Your task to perform on an android device: Open Google Chrome Image 0: 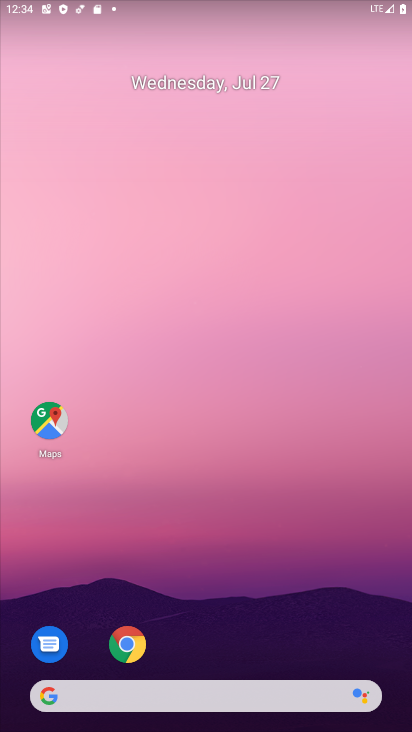
Step 0: click (134, 644)
Your task to perform on an android device: Open Google Chrome Image 1: 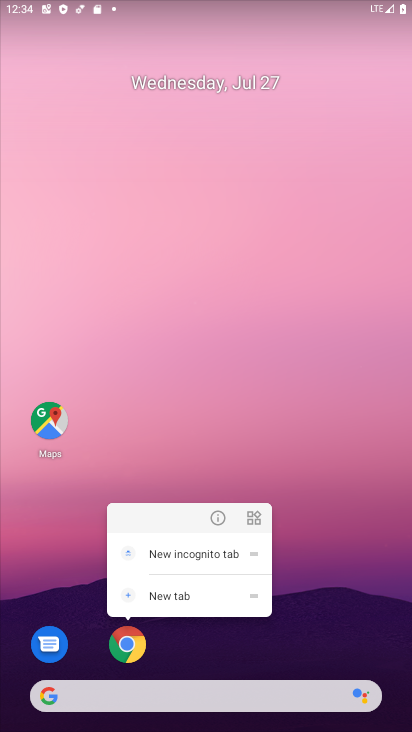
Step 1: click (134, 641)
Your task to perform on an android device: Open Google Chrome Image 2: 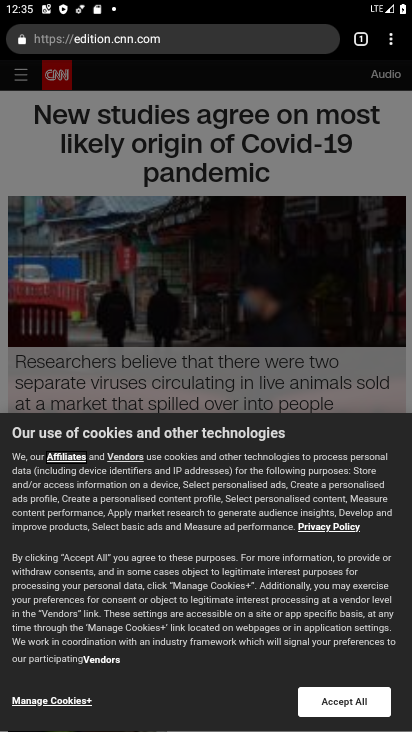
Step 2: task complete